Your task to perform on an android device: Open eBay Image 0: 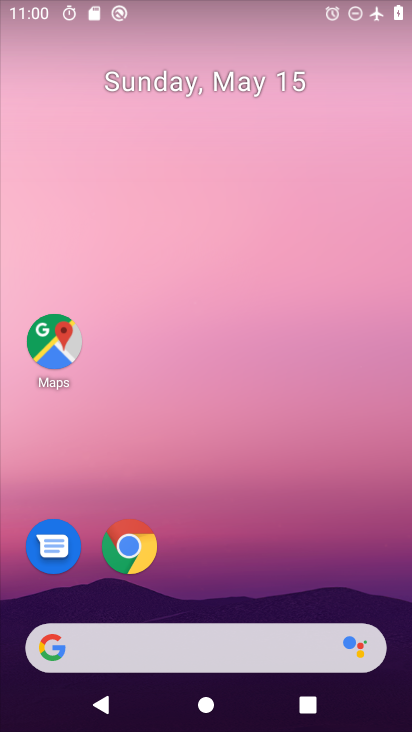
Step 0: click (132, 538)
Your task to perform on an android device: Open eBay Image 1: 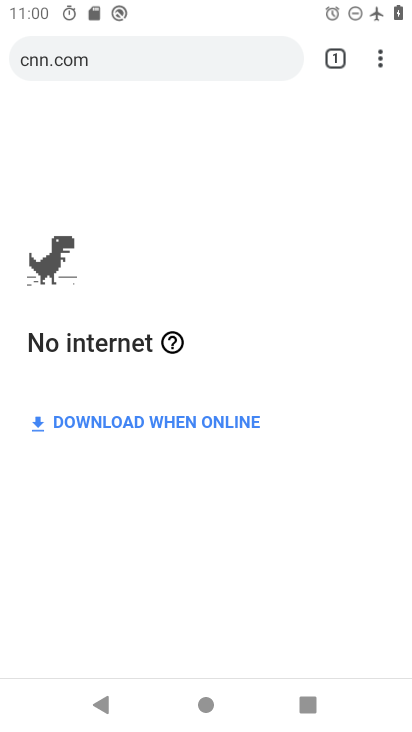
Step 1: click (230, 45)
Your task to perform on an android device: Open eBay Image 2: 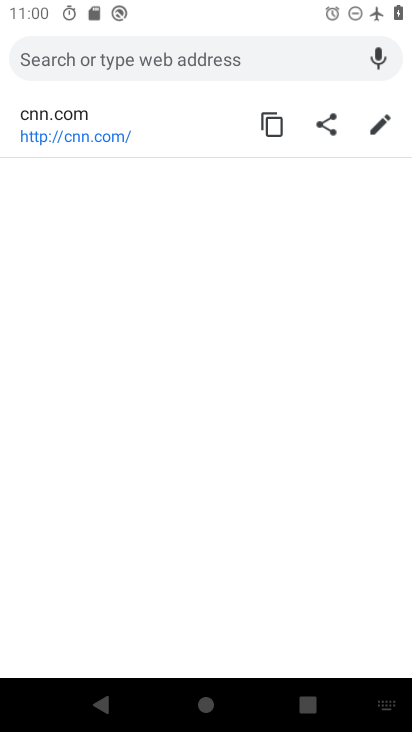
Step 2: type "ebay"
Your task to perform on an android device: Open eBay Image 3: 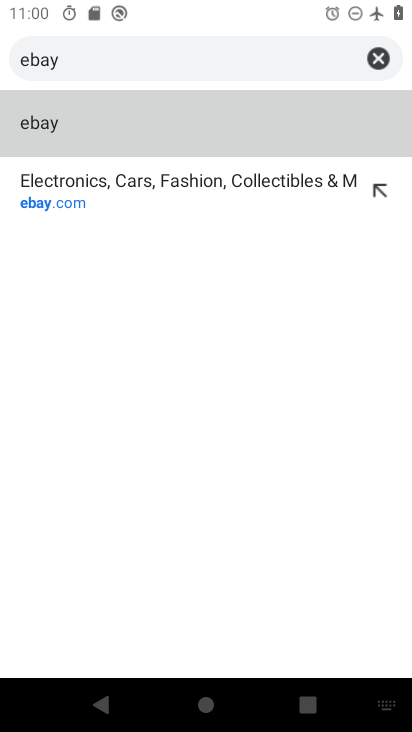
Step 3: click (56, 200)
Your task to perform on an android device: Open eBay Image 4: 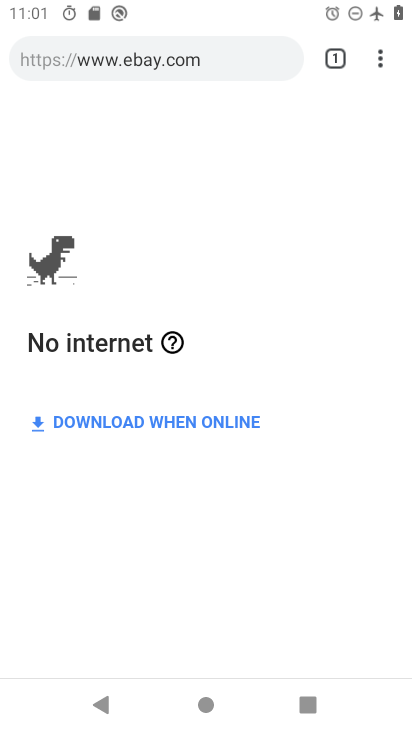
Step 4: task complete